Your task to perform on an android device: Open Amazon Image 0: 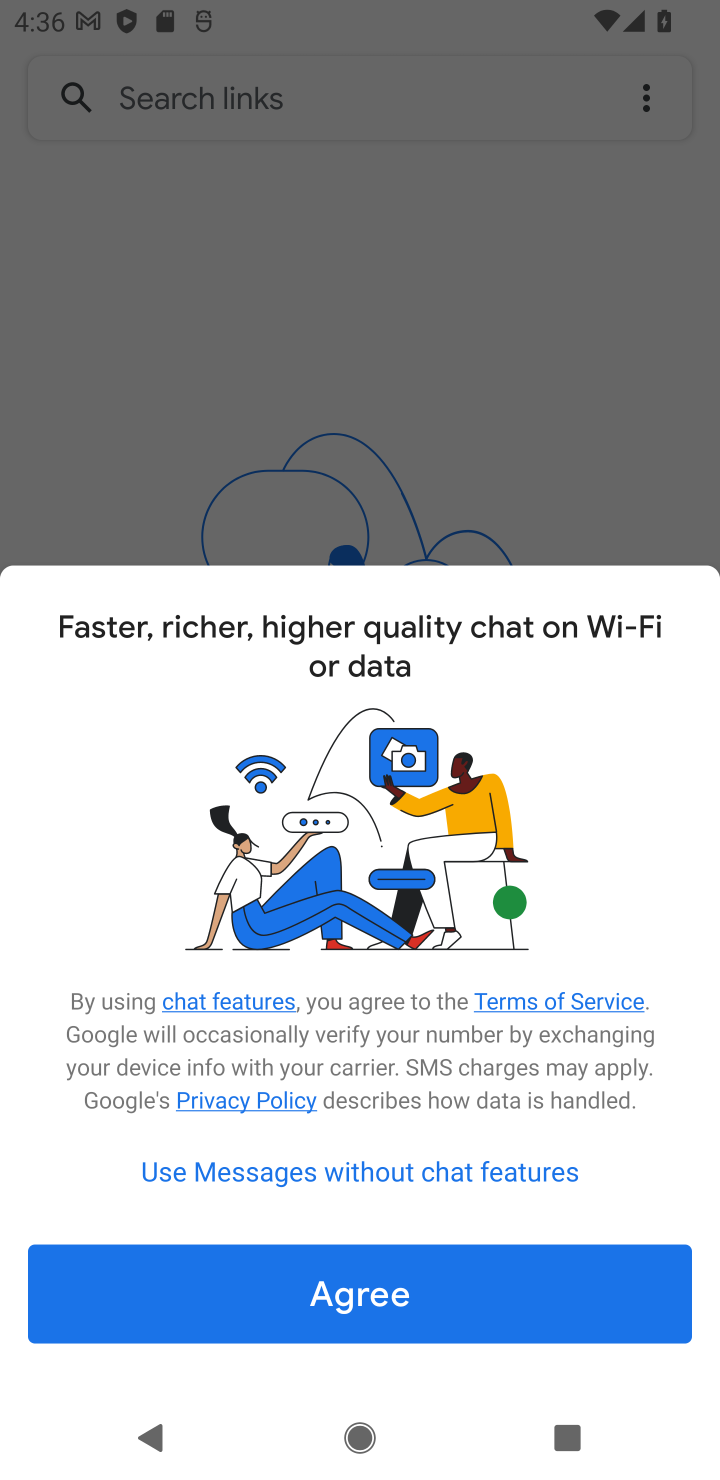
Step 0: press home button
Your task to perform on an android device: Open Amazon Image 1: 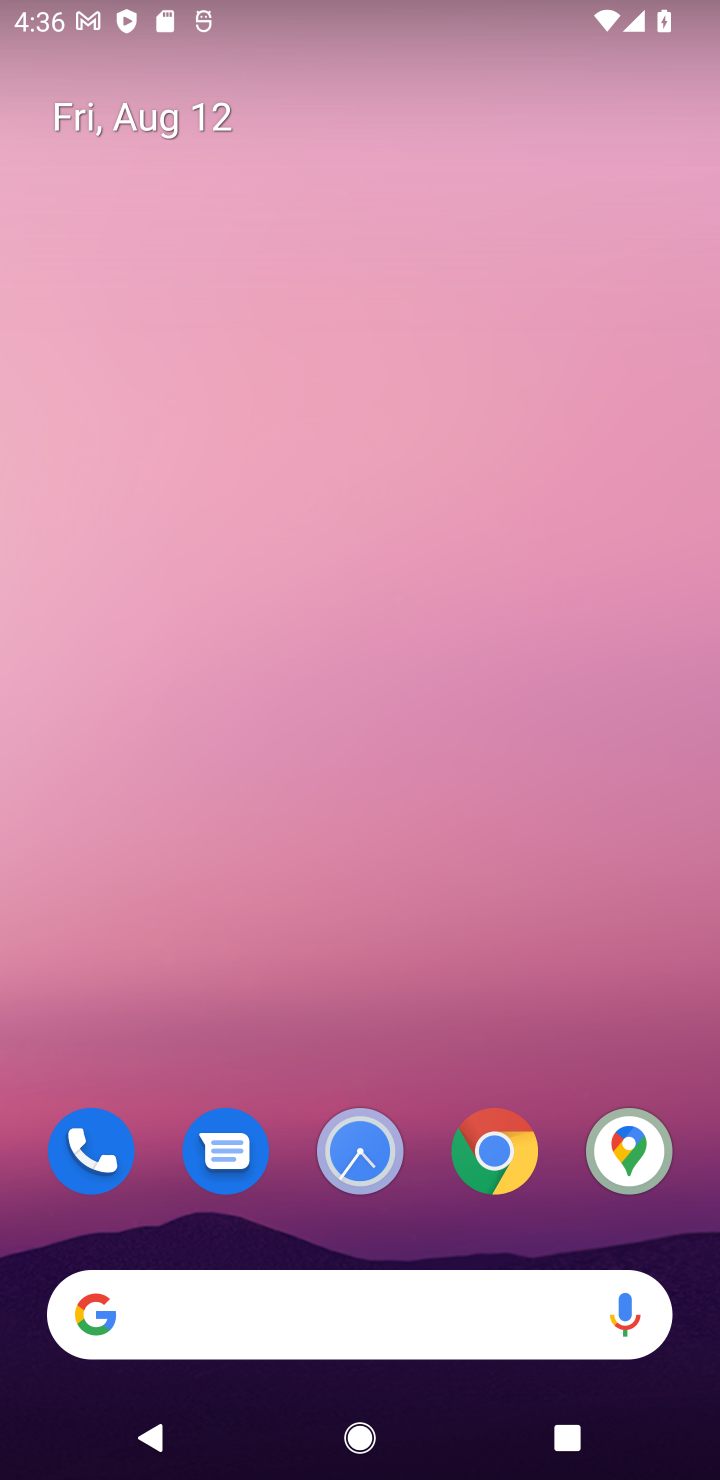
Step 1: drag from (505, 1056) to (597, 0)
Your task to perform on an android device: Open Amazon Image 2: 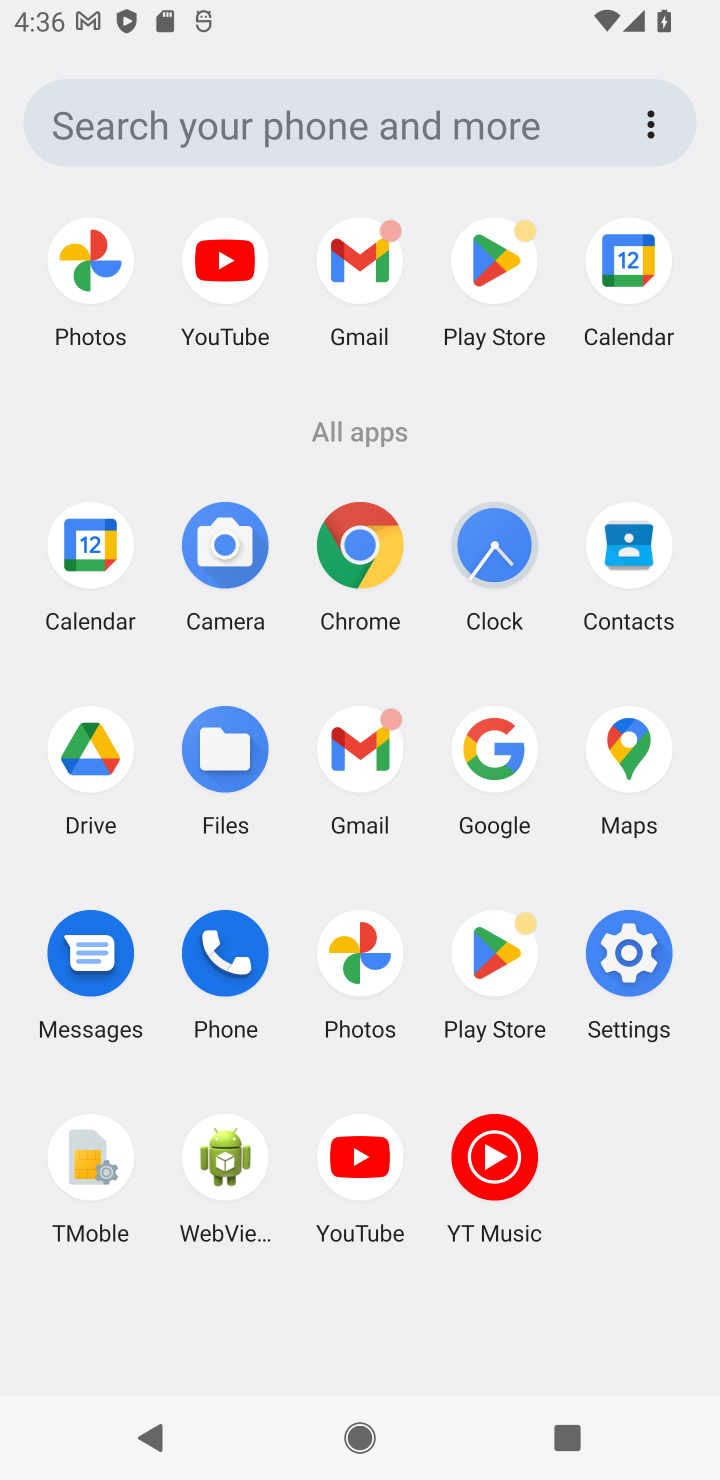
Step 2: click (367, 543)
Your task to perform on an android device: Open Amazon Image 3: 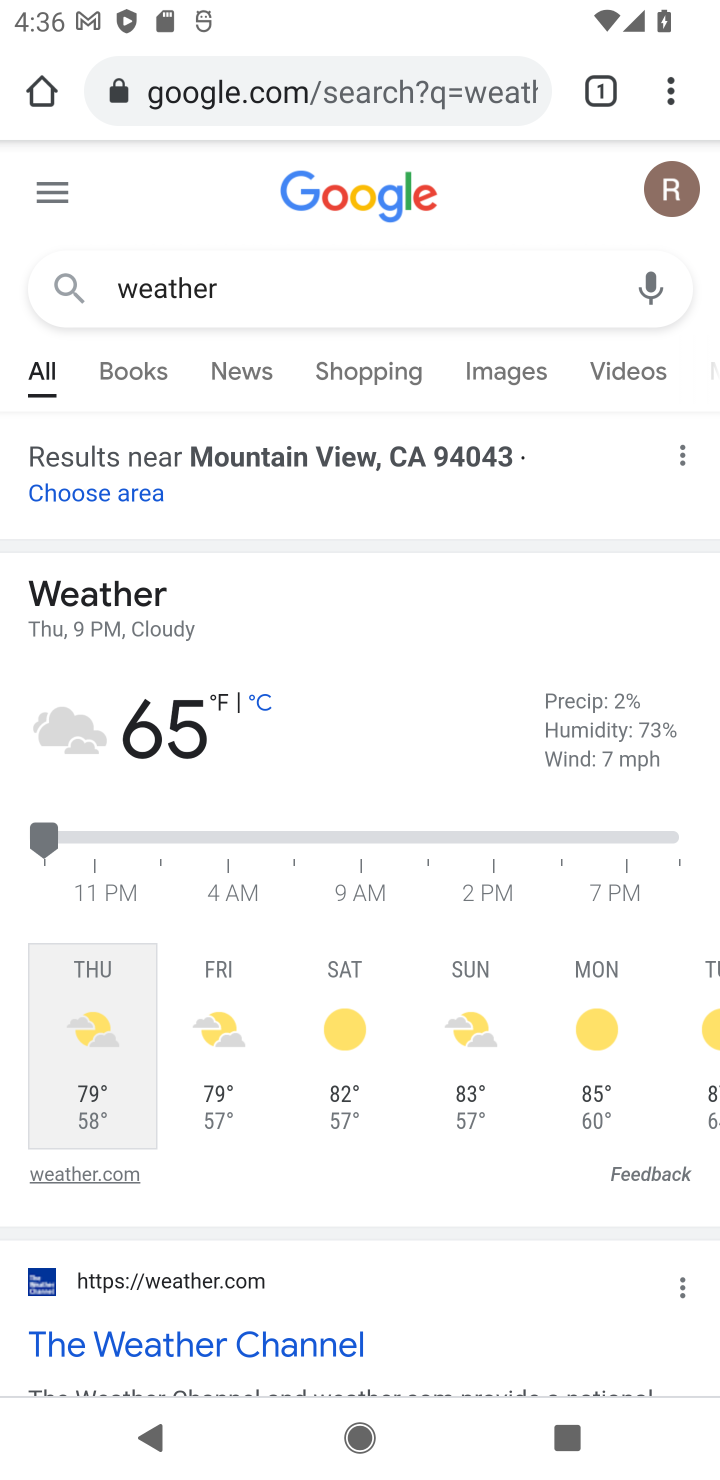
Step 3: click (414, 92)
Your task to perform on an android device: Open Amazon Image 4: 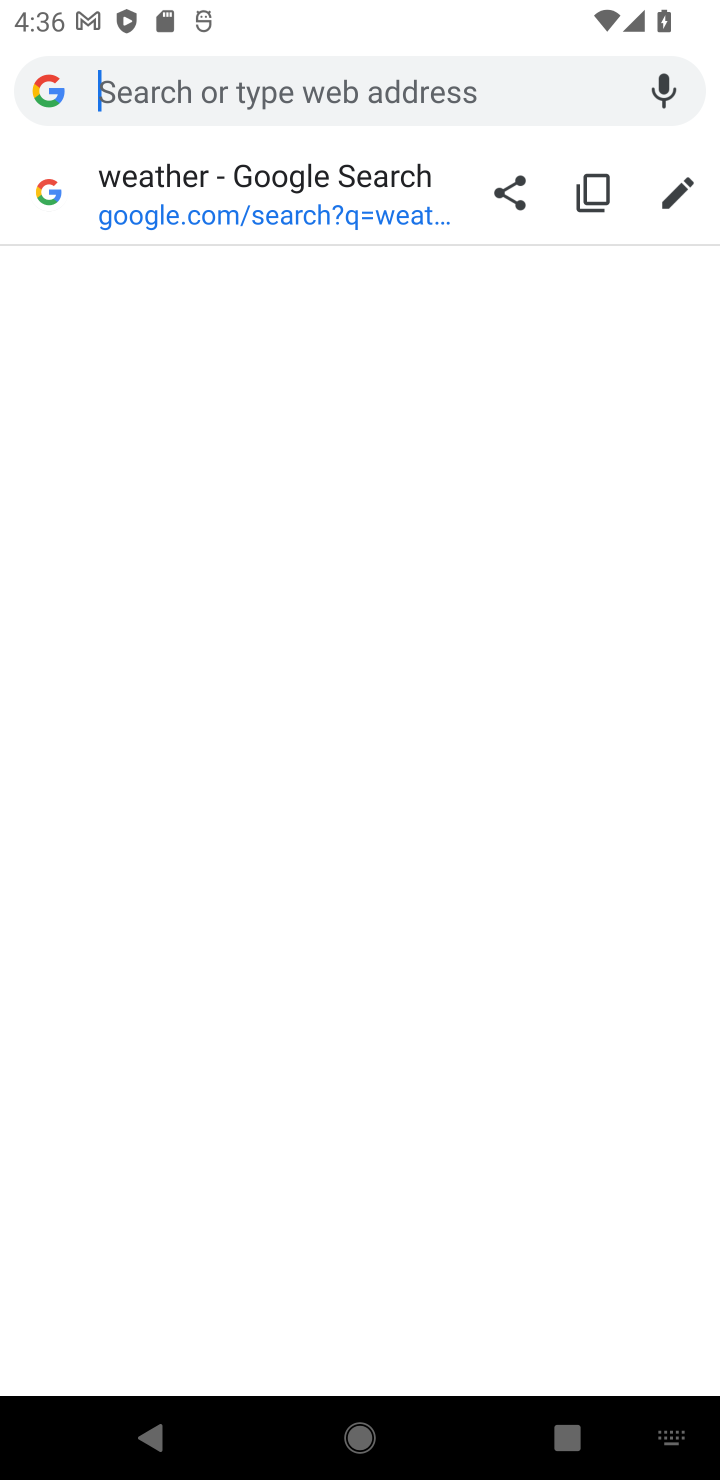
Step 4: type "amazon"
Your task to perform on an android device: Open Amazon Image 5: 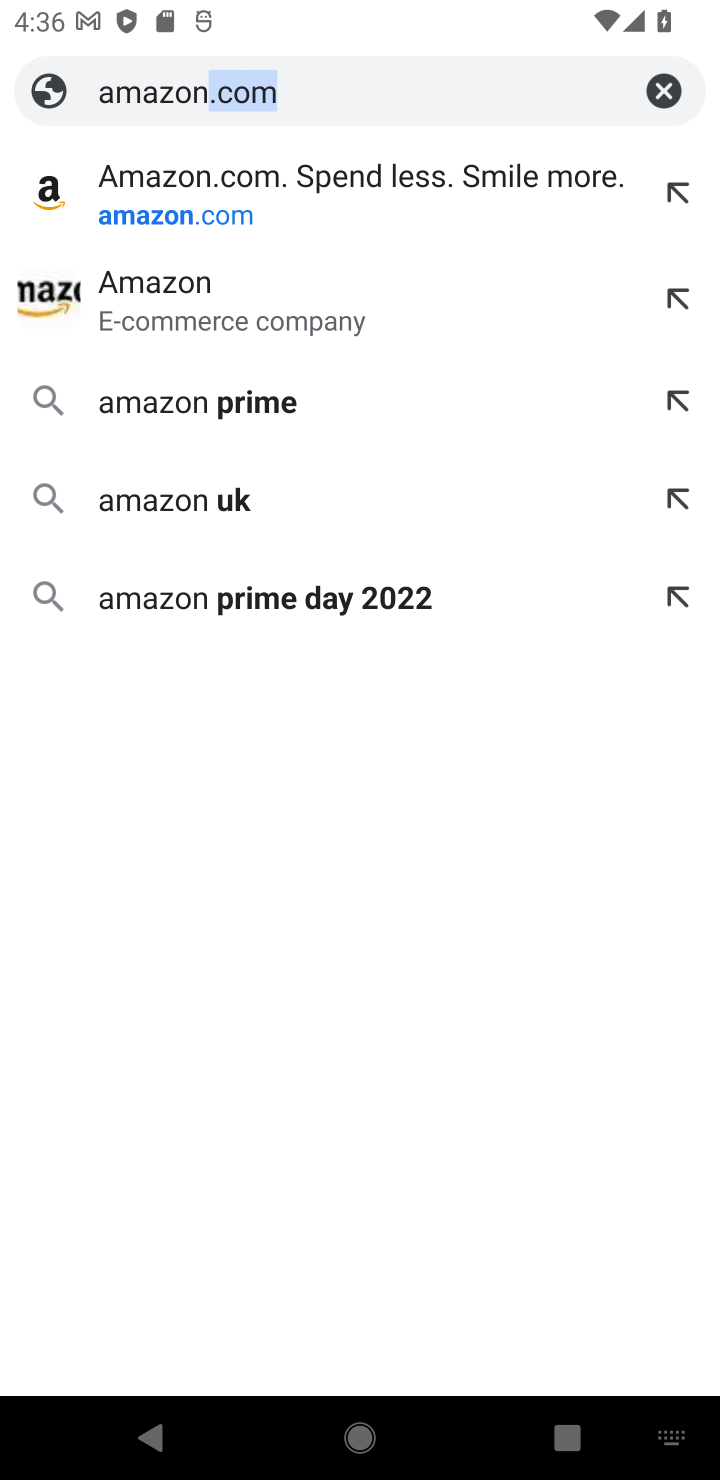
Step 5: click (209, 215)
Your task to perform on an android device: Open Amazon Image 6: 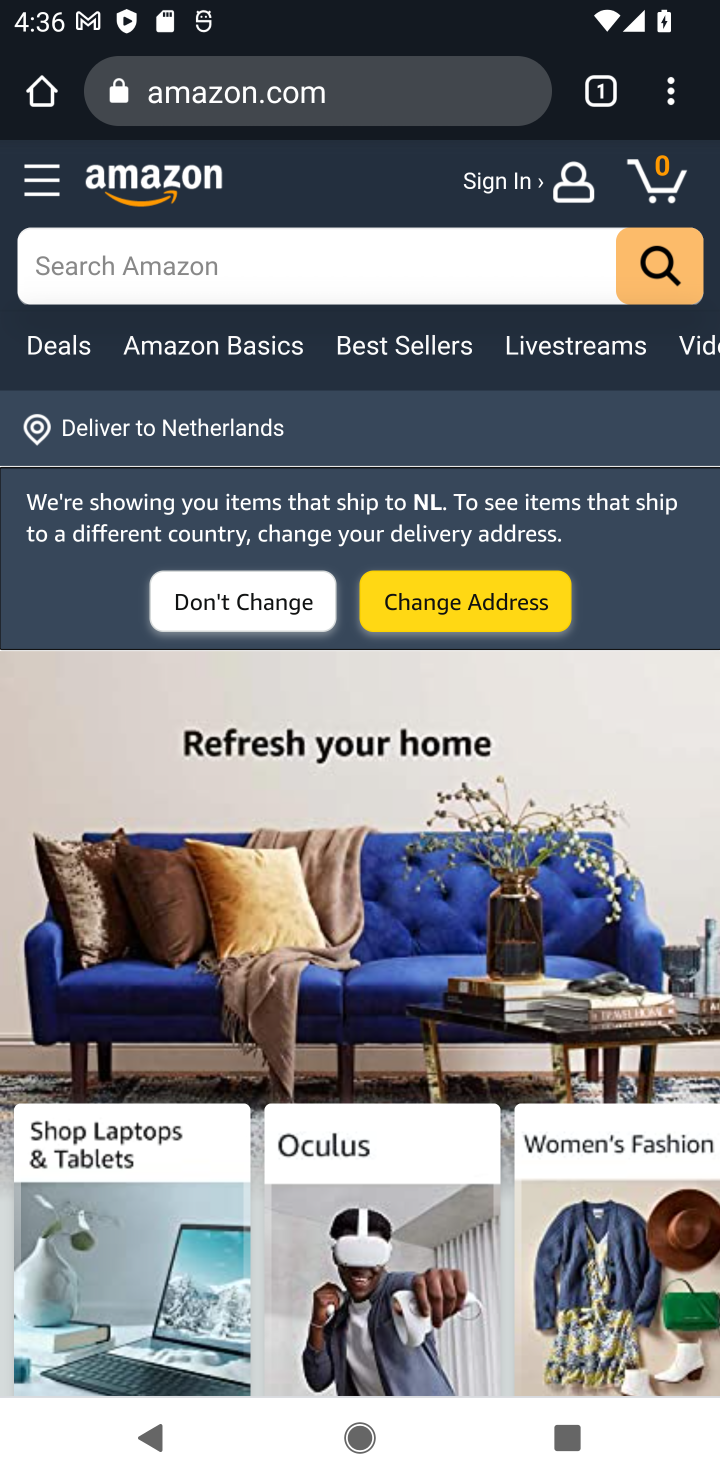
Step 6: task complete